Your task to perform on an android device: stop showing notifications on the lock screen Image 0: 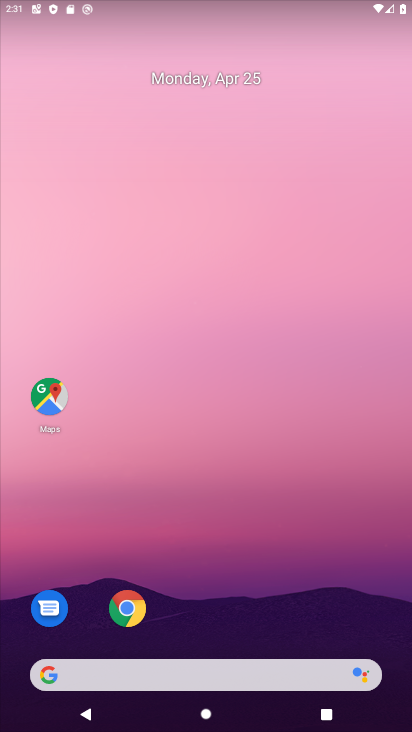
Step 0: drag from (338, 613) to (345, 99)
Your task to perform on an android device: stop showing notifications on the lock screen Image 1: 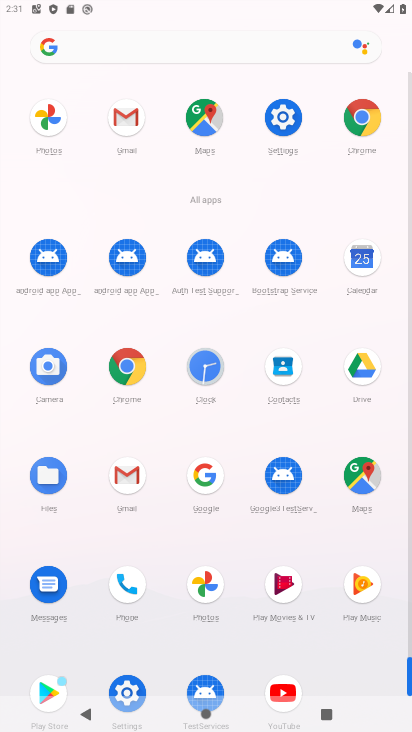
Step 1: click (296, 116)
Your task to perform on an android device: stop showing notifications on the lock screen Image 2: 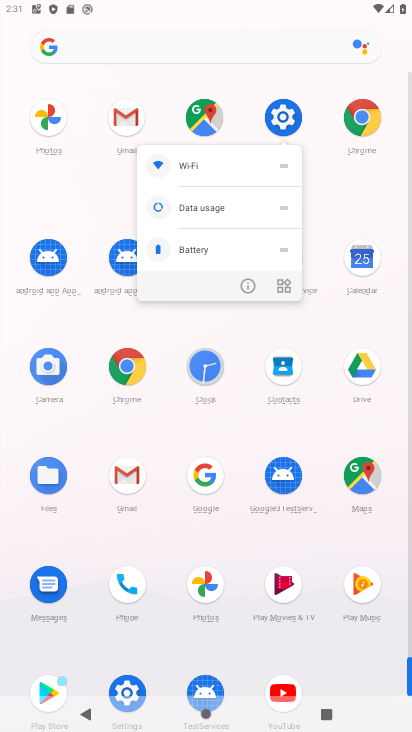
Step 2: click (296, 116)
Your task to perform on an android device: stop showing notifications on the lock screen Image 3: 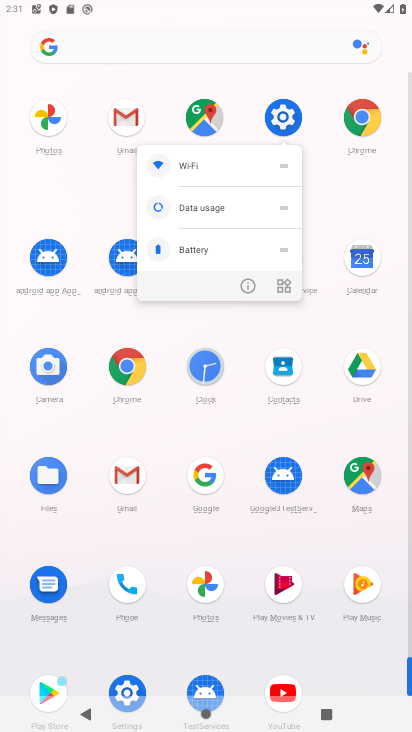
Step 3: click (296, 116)
Your task to perform on an android device: stop showing notifications on the lock screen Image 4: 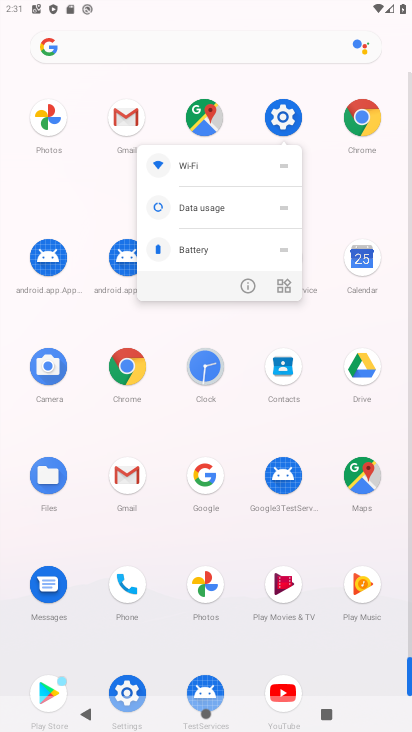
Step 4: click (292, 109)
Your task to perform on an android device: stop showing notifications on the lock screen Image 5: 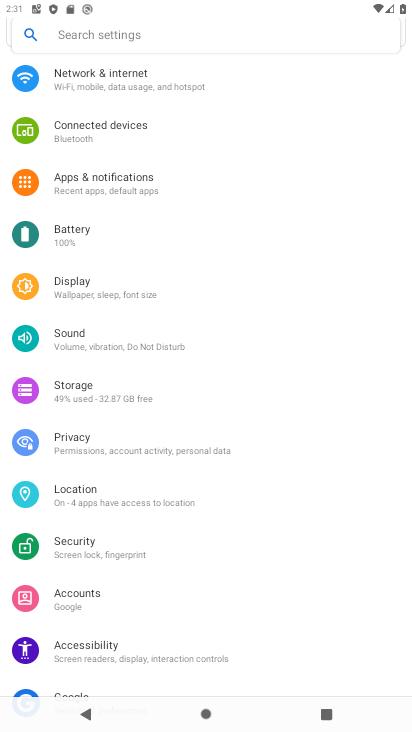
Step 5: drag from (343, 560) to (352, 396)
Your task to perform on an android device: stop showing notifications on the lock screen Image 6: 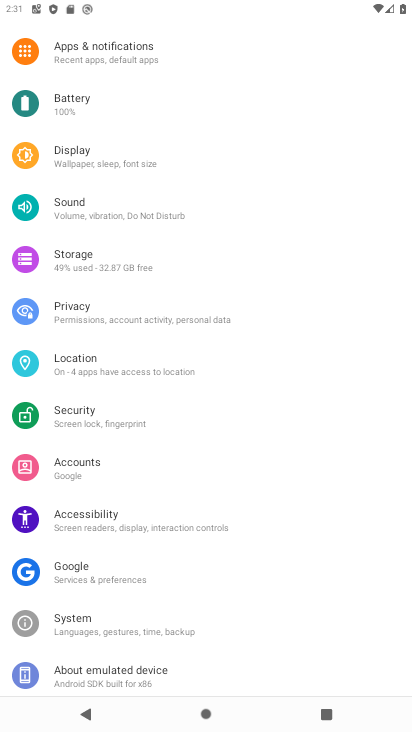
Step 6: drag from (327, 596) to (335, 394)
Your task to perform on an android device: stop showing notifications on the lock screen Image 7: 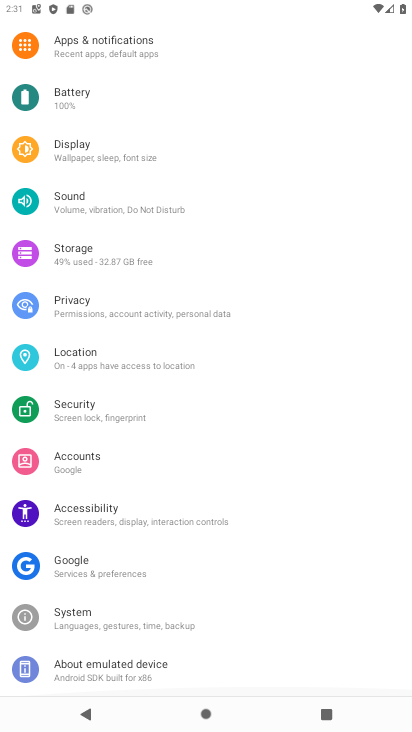
Step 7: drag from (345, 315) to (339, 443)
Your task to perform on an android device: stop showing notifications on the lock screen Image 8: 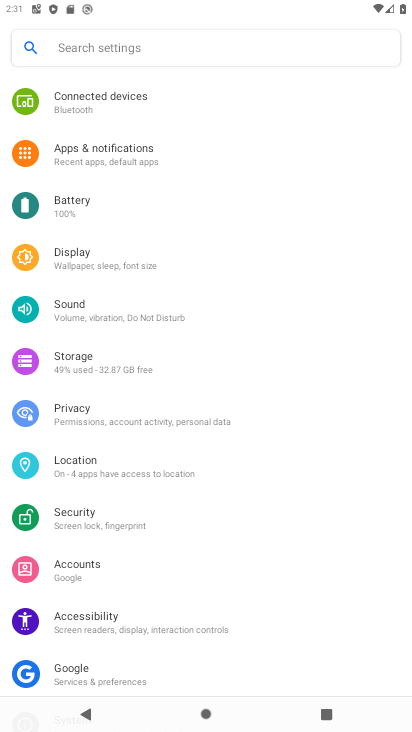
Step 8: drag from (337, 254) to (352, 414)
Your task to perform on an android device: stop showing notifications on the lock screen Image 9: 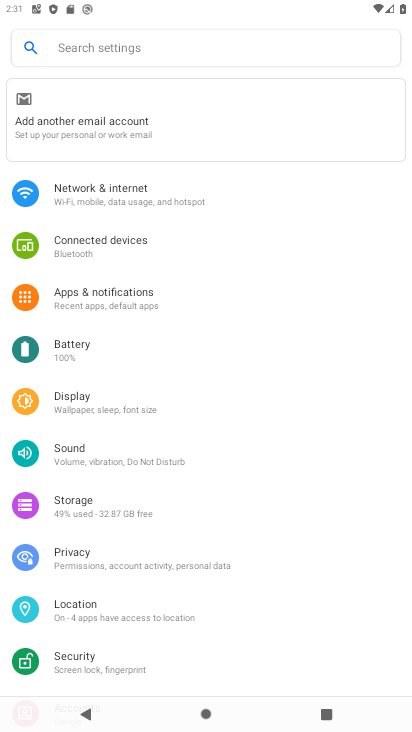
Step 9: drag from (326, 272) to (326, 380)
Your task to perform on an android device: stop showing notifications on the lock screen Image 10: 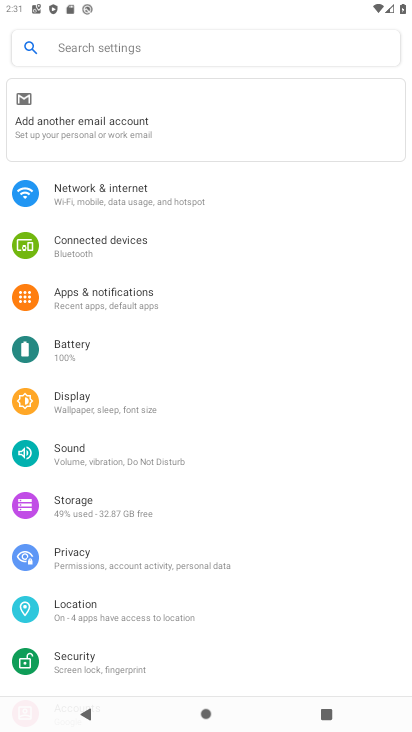
Step 10: click (154, 300)
Your task to perform on an android device: stop showing notifications on the lock screen Image 11: 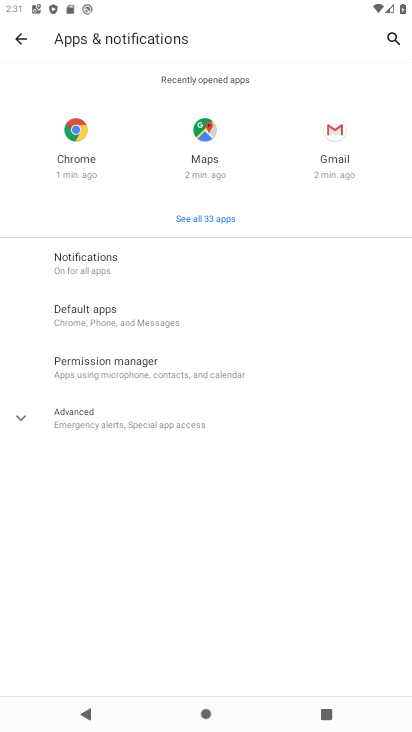
Step 11: click (96, 268)
Your task to perform on an android device: stop showing notifications on the lock screen Image 12: 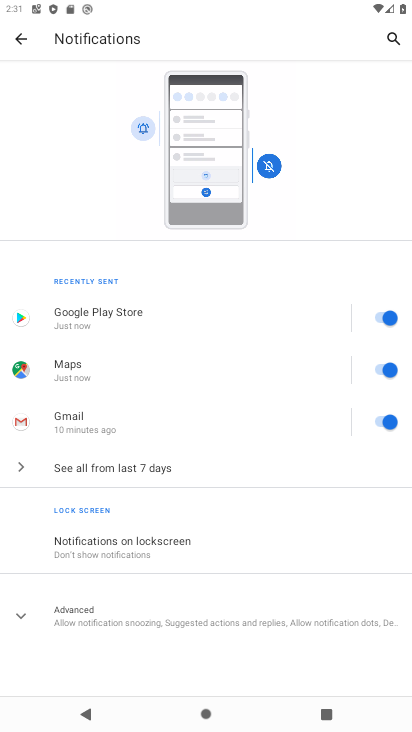
Step 12: drag from (268, 560) to (260, 402)
Your task to perform on an android device: stop showing notifications on the lock screen Image 13: 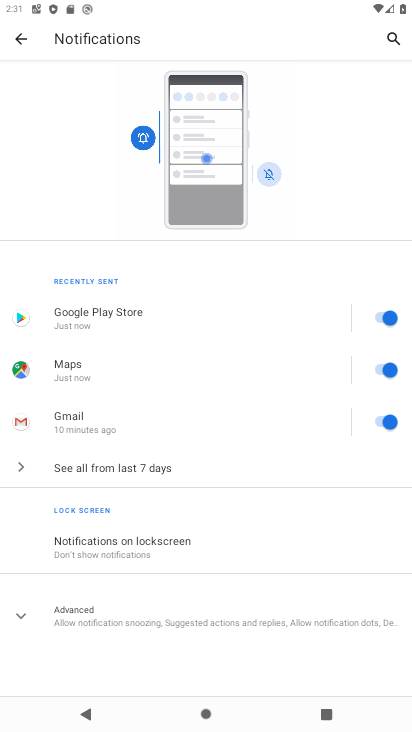
Step 13: click (184, 555)
Your task to perform on an android device: stop showing notifications on the lock screen Image 14: 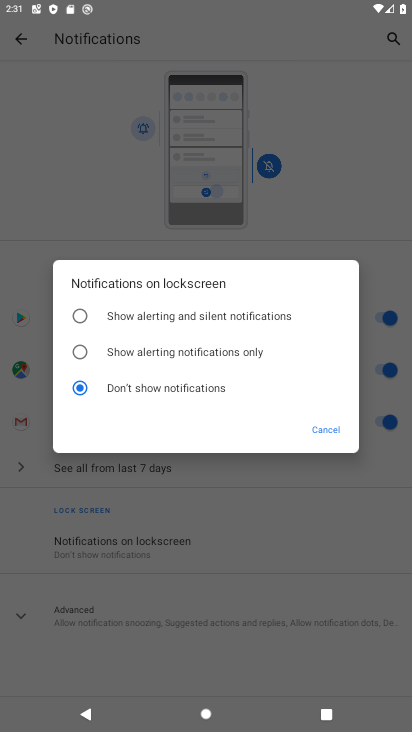
Step 14: task complete